Your task to perform on an android device: Go to settings Image 0: 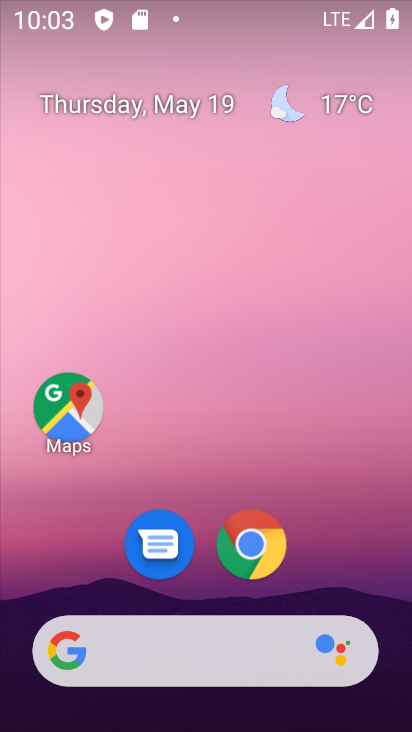
Step 0: drag from (232, 558) to (263, 334)
Your task to perform on an android device: Go to settings Image 1: 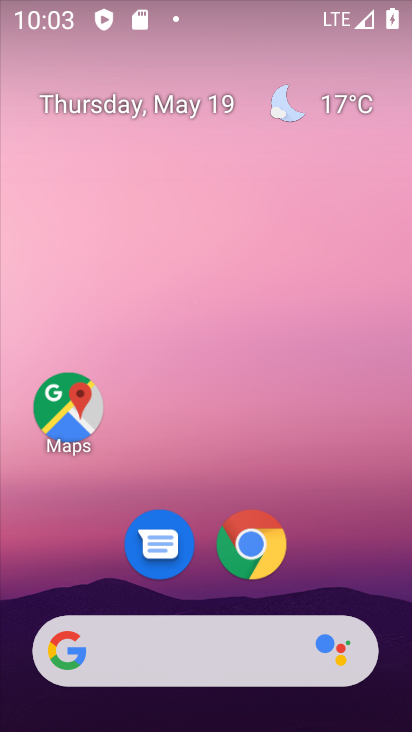
Step 1: drag from (193, 677) to (289, 131)
Your task to perform on an android device: Go to settings Image 2: 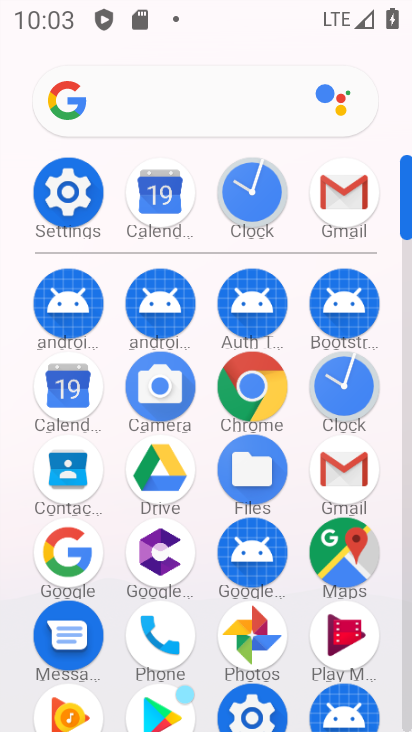
Step 2: click (55, 190)
Your task to perform on an android device: Go to settings Image 3: 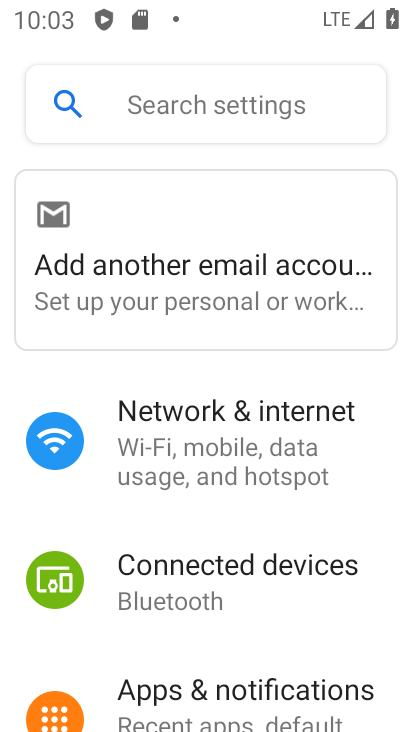
Step 3: press home button
Your task to perform on an android device: Go to settings Image 4: 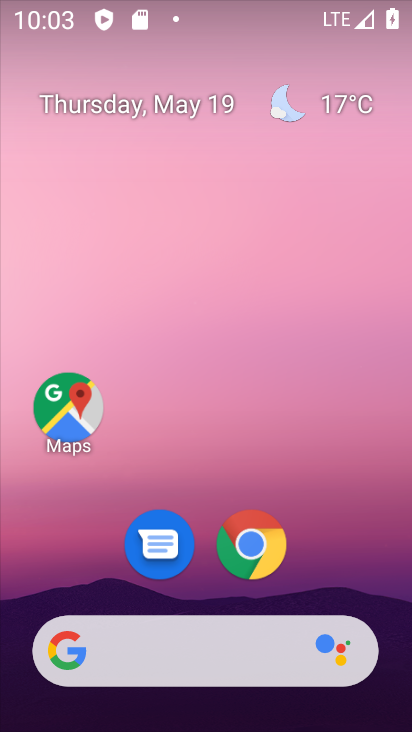
Step 4: drag from (203, 730) to (287, 20)
Your task to perform on an android device: Go to settings Image 5: 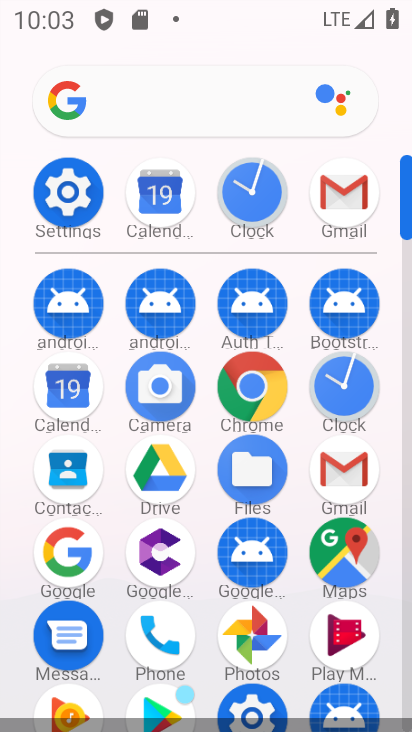
Step 5: click (70, 200)
Your task to perform on an android device: Go to settings Image 6: 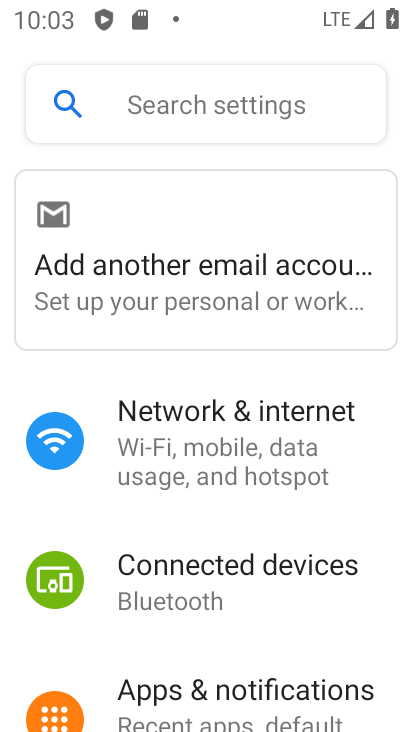
Step 6: task complete